Your task to perform on an android device: find snoozed emails in the gmail app Image 0: 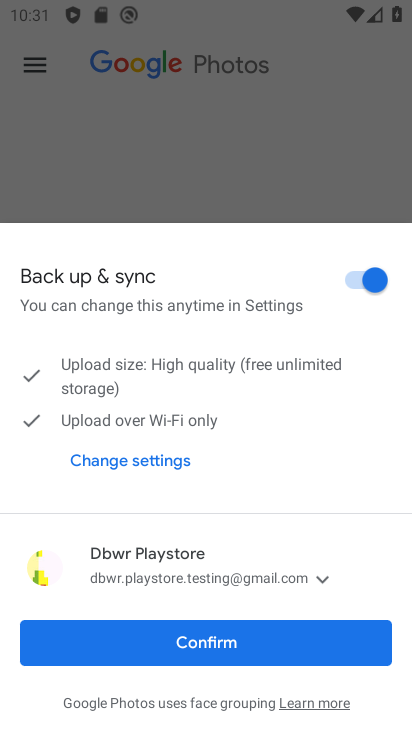
Step 0: click (166, 642)
Your task to perform on an android device: find snoozed emails in the gmail app Image 1: 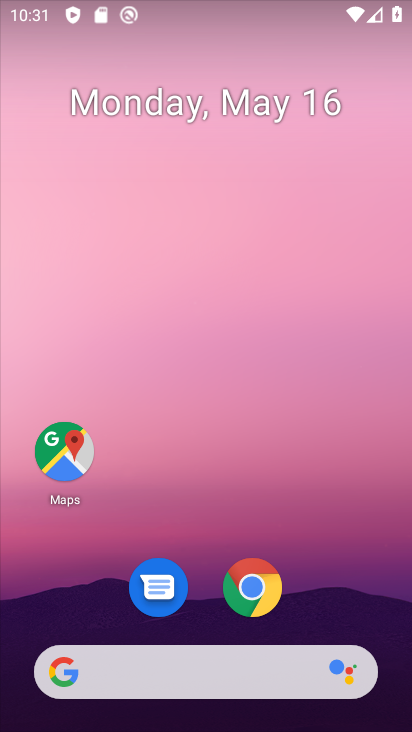
Step 1: drag from (300, 547) to (267, 25)
Your task to perform on an android device: find snoozed emails in the gmail app Image 2: 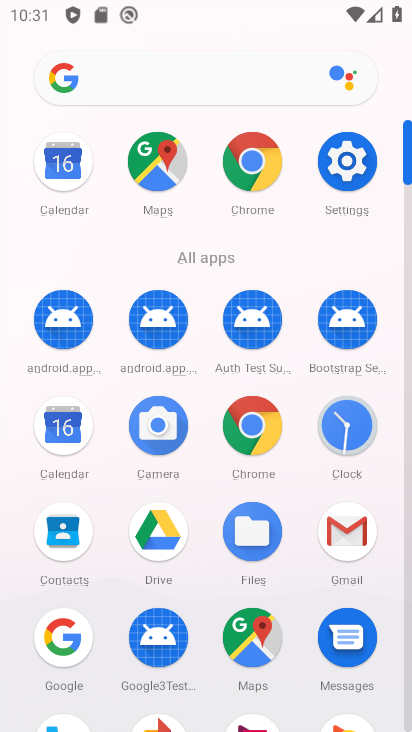
Step 2: click (343, 521)
Your task to perform on an android device: find snoozed emails in the gmail app Image 3: 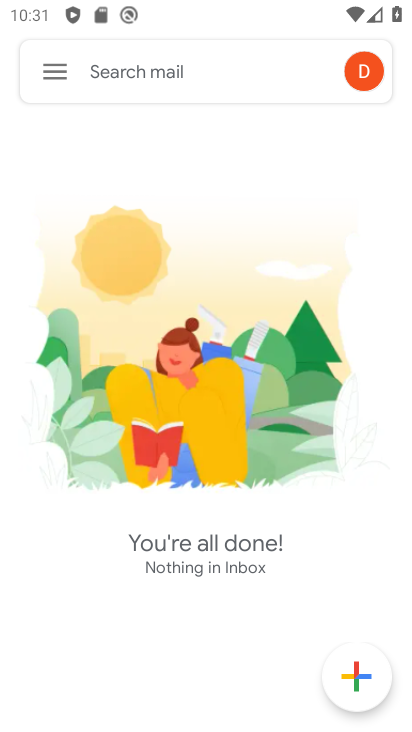
Step 3: click (53, 69)
Your task to perform on an android device: find snoozed emails in the gmail app Image 4: 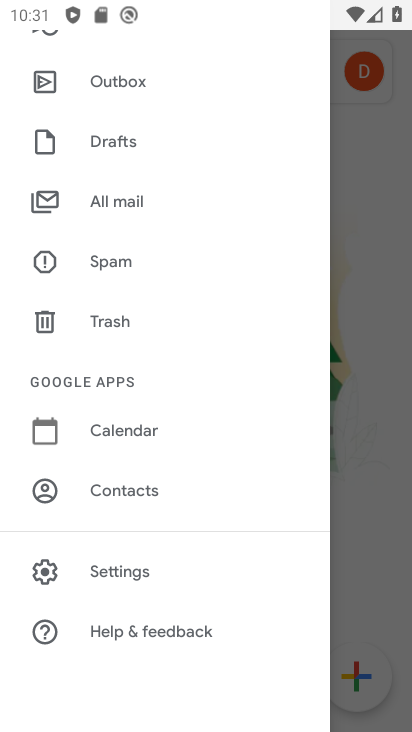
Step 4: drag from (246, 580) to (210, 87)
Your task to perform on an android device: find snoozed emails in the gmail app Image 5: 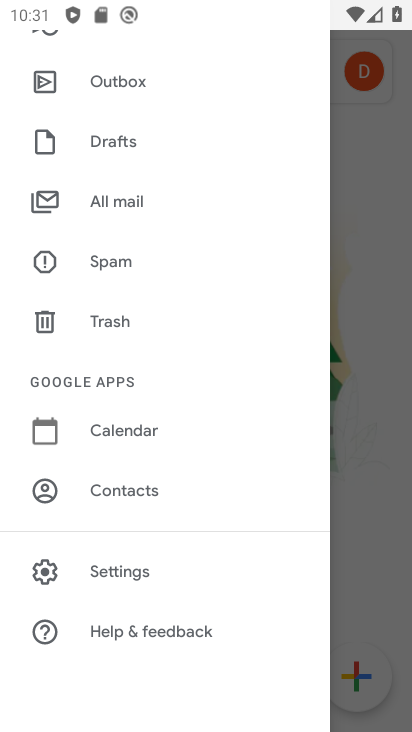
Step 5: drag from (220, 130) to (202, 571)
Your task to perform on an android device: find snoozed emails in the gmail app Image 6: 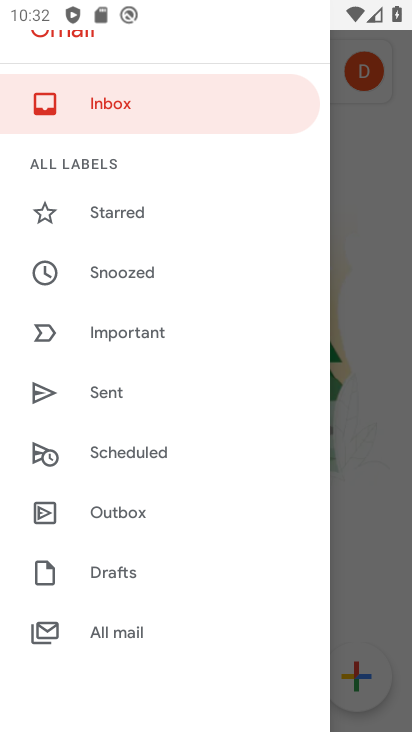
Step 6: click (144, 275)
Your task to perform on an android device: find snoozed emails in the gmail app Image 7: 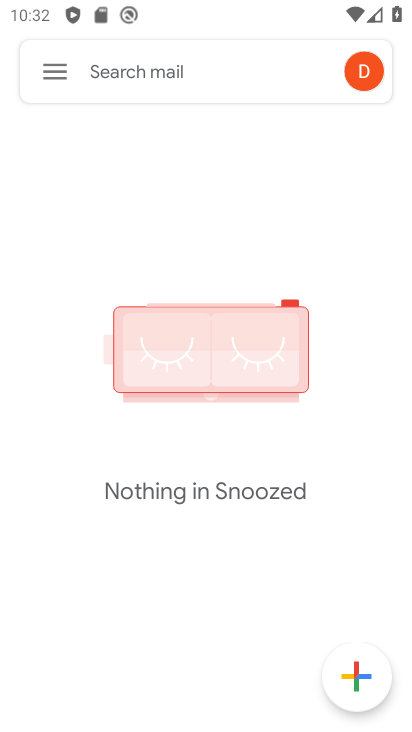
Step 7: task complete